Your task to perform on an android device: Open the calendar and show me this week's events? Image 0: 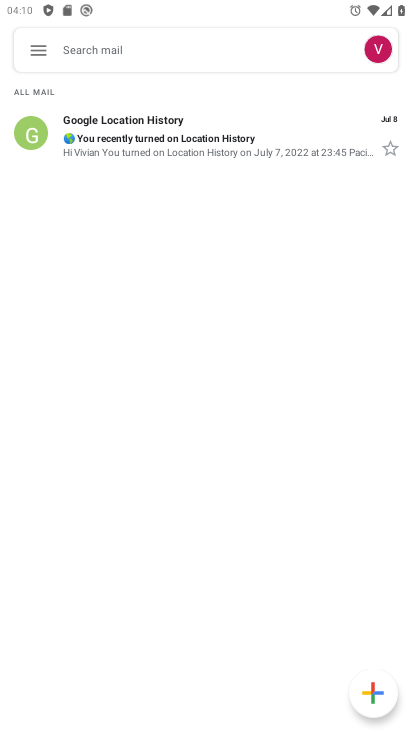
Step 0: press home button
Your task to perform on an android device: Open the calendar and show me this week's events? Image 1: 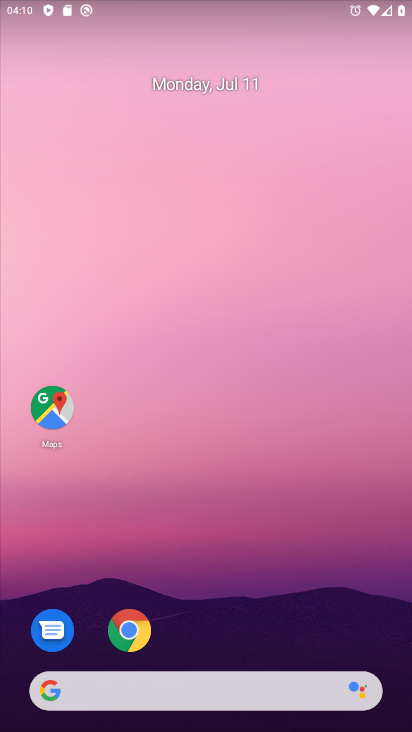
Step 1: drag from (210, 641) to (241, 3)
Your task to perform on an android device: Open the calendar and show me this week's events? Image 2: 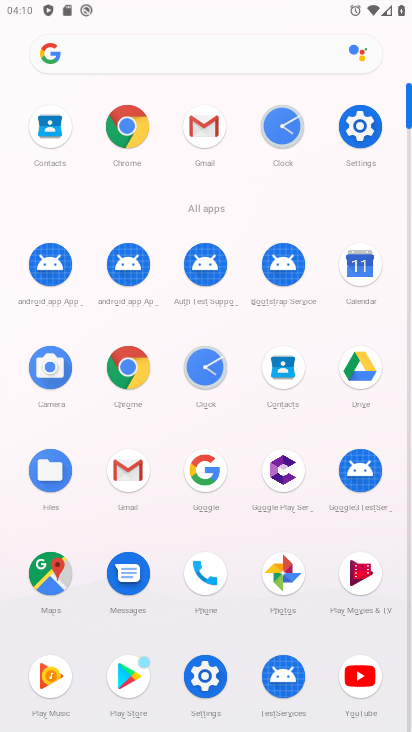
Step 2: click (352, 259)
Your task to perform on an android device: Open the calendar and show me this week's events? Image 3: 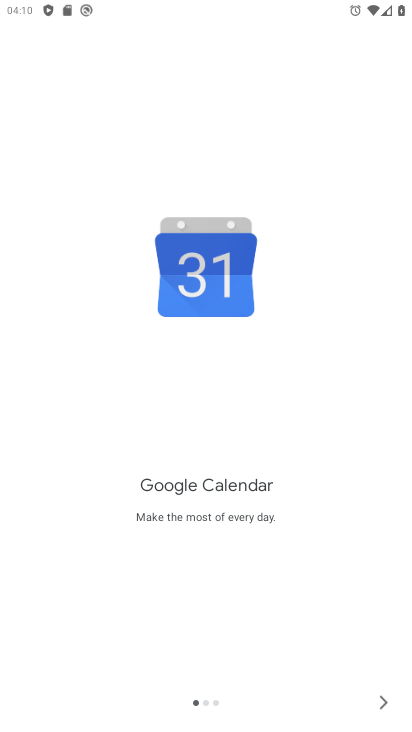
Step 3: click (378, 697)
Your task to perform on an android device: Open the calendar and show me this week's events? Image 4: 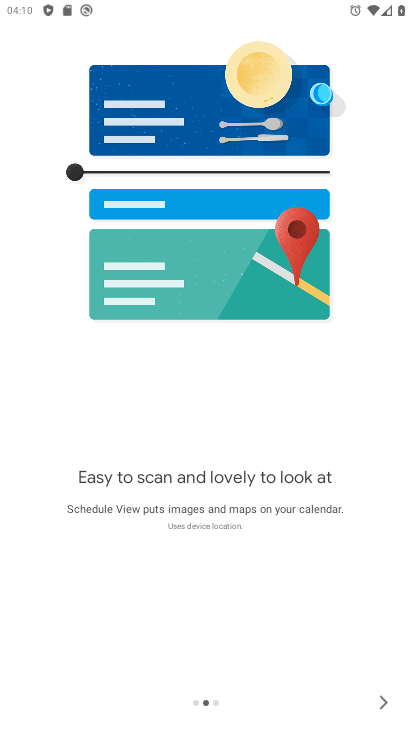
Step 4: click (377, 700)
Your task to perform on an android device: Open the calendar and show me this week's events? Image 5: 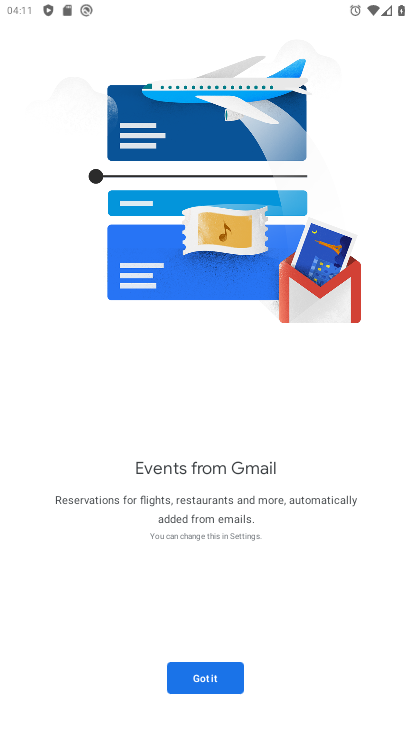
Step 5: click (215, 675)
Your task to perform on an android device: Open the calendar and show me this week's events? Image 6: 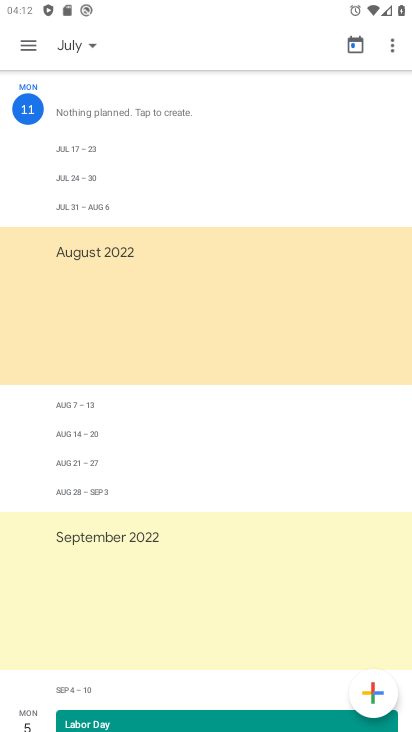
Step 6: task complete